Your task to perform on an android device: toggle improve location accuracy Image 0: 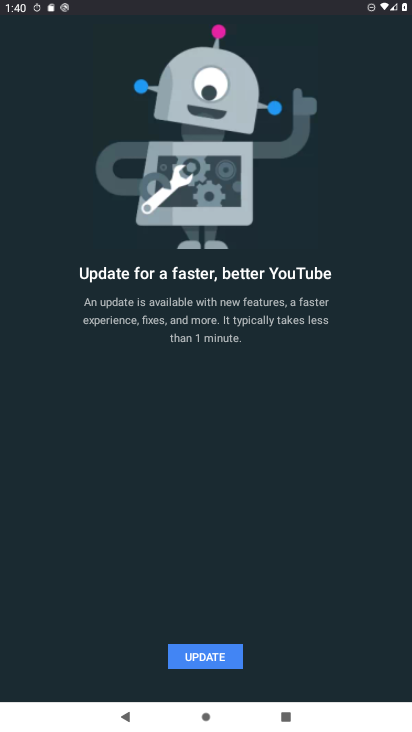
Step 0: press home button
Your task to perform on an android device: toggle improve location accuracy Image 1: 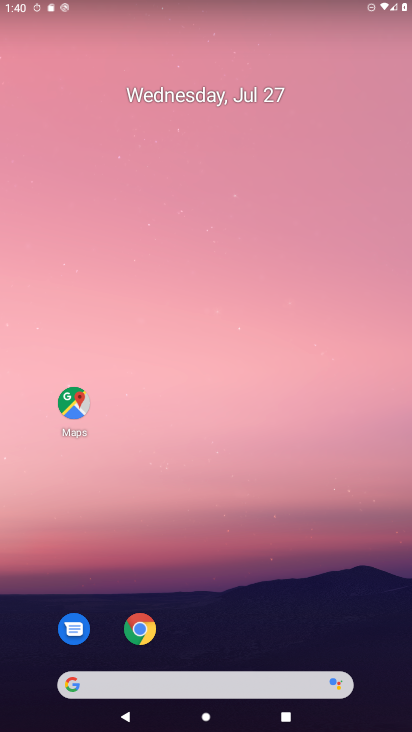
Step 1: drag from (235, 628) to (245, 150)
Your task to perform on an android device: toggle improve location accuracy Image 2: 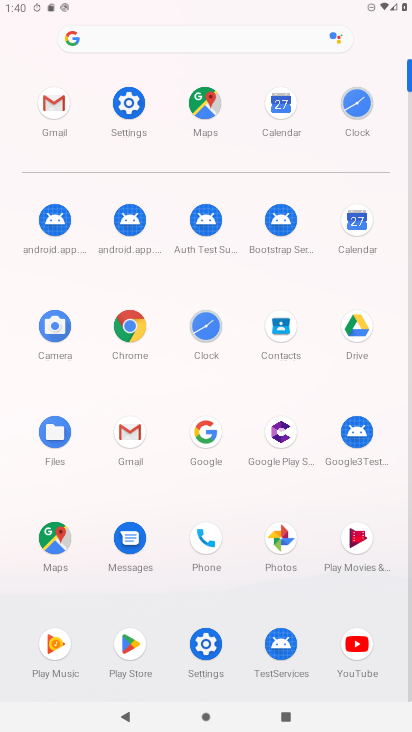
Step 2: click (117, 113)
Your task to perform on an android device: toggle improve location accuracy Image 3: 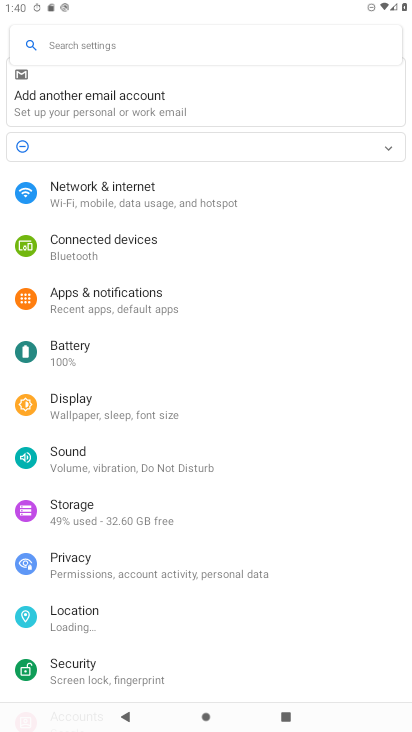
Step 3: click (74, 627)
Your task to perform on an android device: toggle improve location accuracy Image 4: 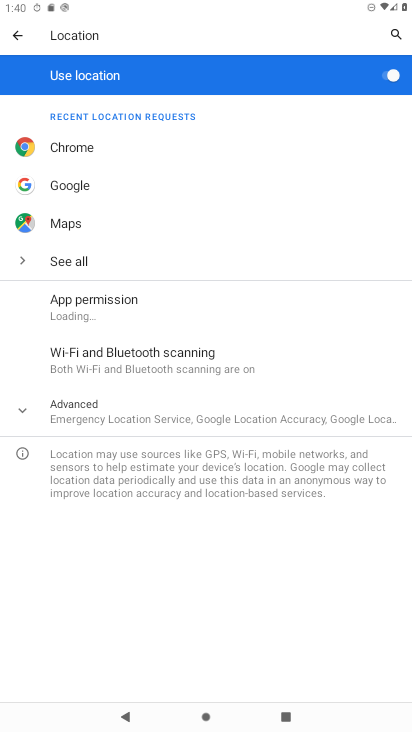
Step 4: click (74, 416)
Your task to perform on an android device: toggle improve location accuracy Image 5: 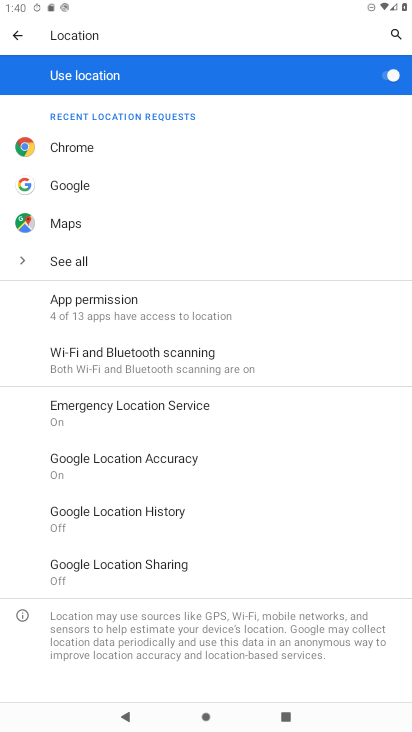
Step 5: click (115, 462)
Your task to perform on an android device: toggle improve location accuracy Image 6: 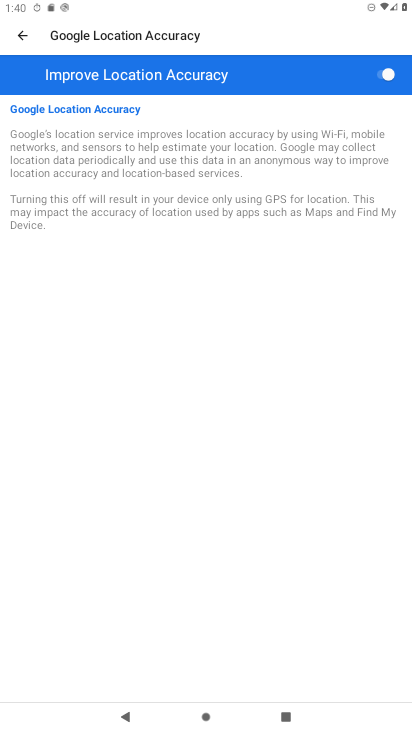
Step 6: click (397, 71)
Your task to perform on an android device: toggle improve location accuracy Image 7: 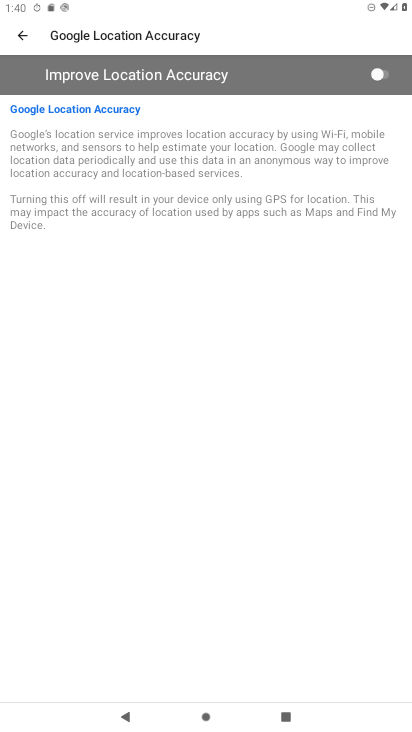
Step 7: task complete